Your task to perform on an android device: open app "Venmo" (install if not already installed) and go to login screen Image 0: 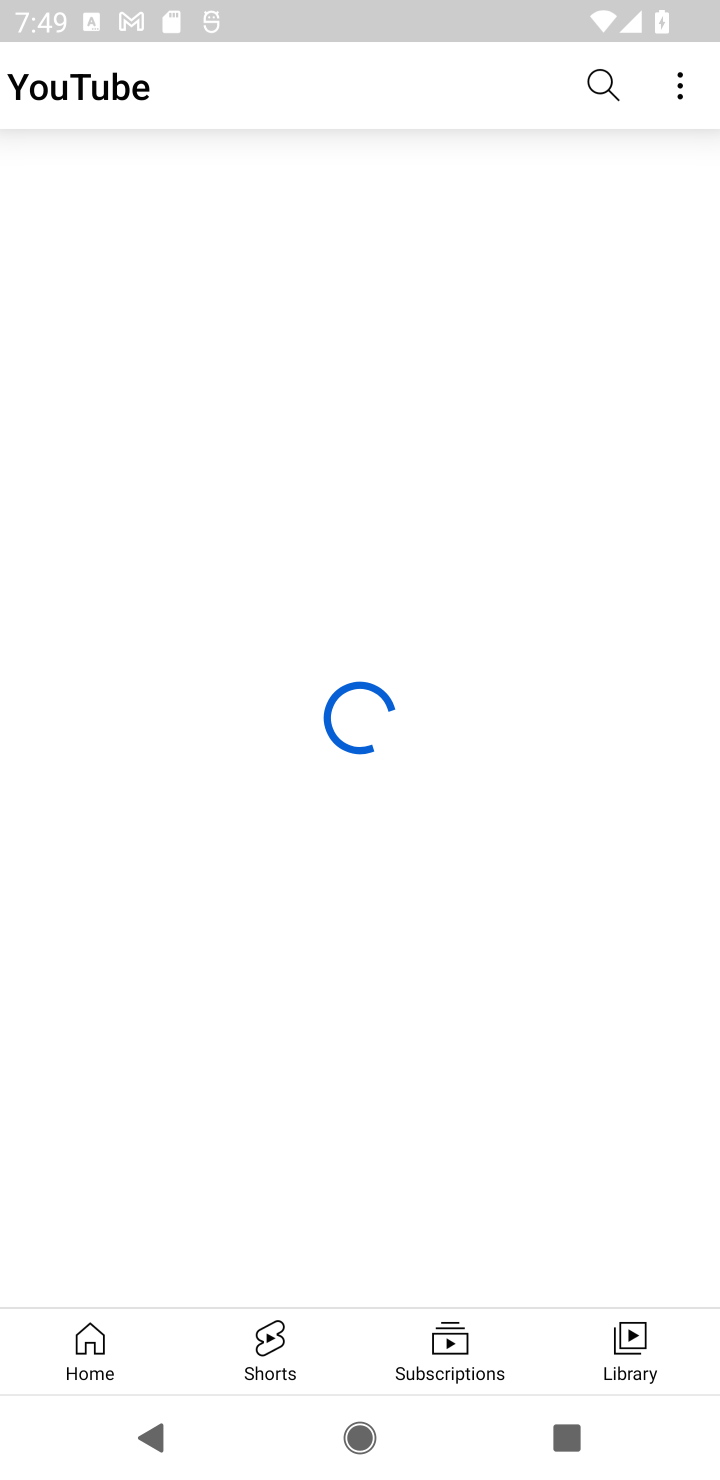
Step 0: press home button
Your task to perform on an android device: open app "Venmo" (install if not already installed) and go to login screen Image 1: 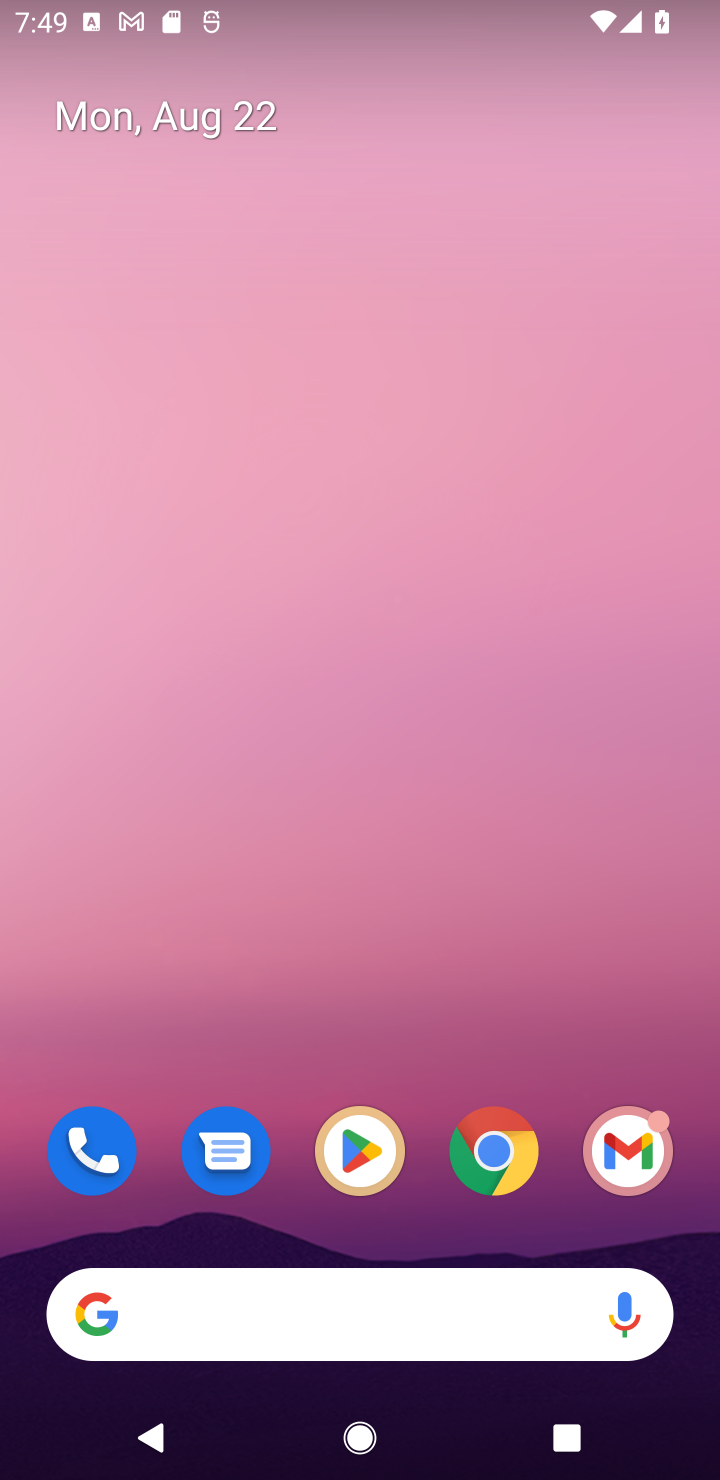
Step 1: click (349, 1137)
Your task to perform on an android device: open app "Venmo" (install if not already installed) and go to login screen Image 2: 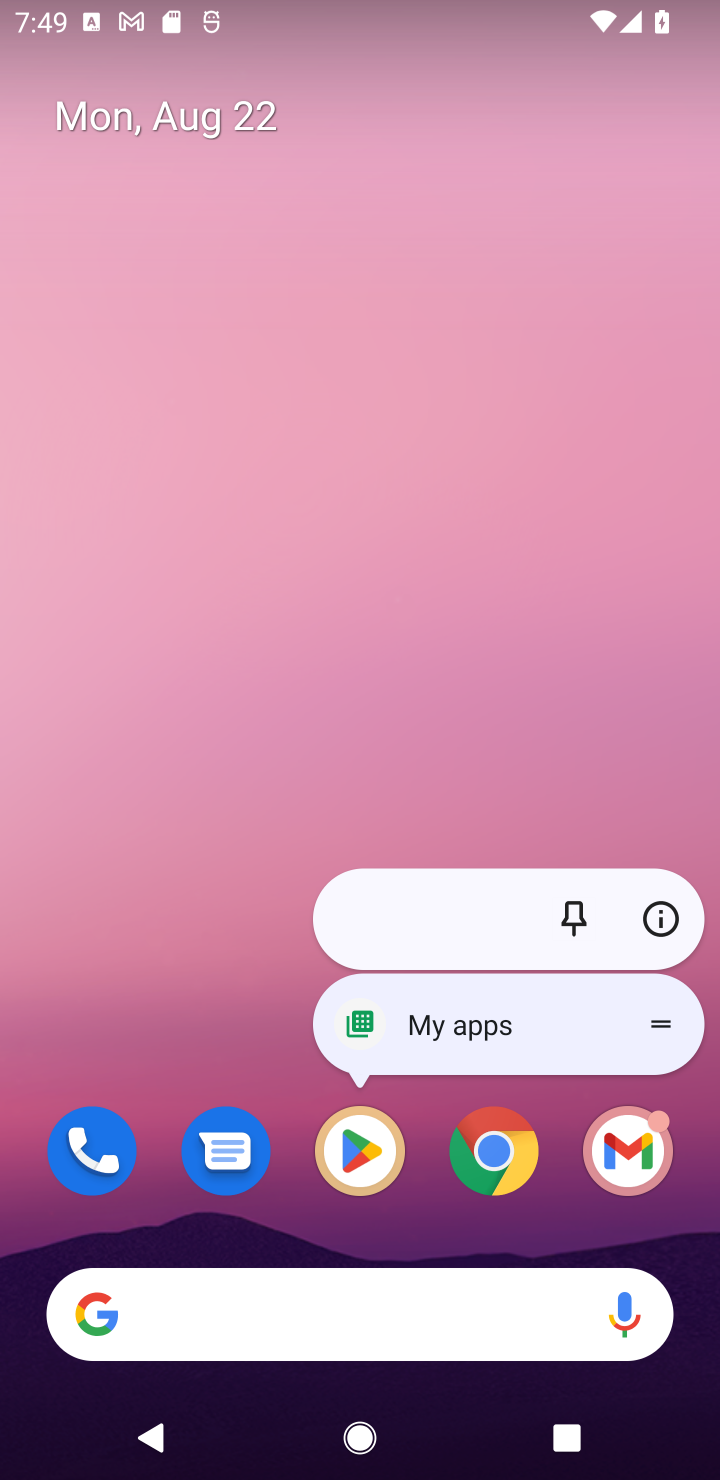
Step 2: click (349, 1145)
Your task to perform on an android device: open app "Venmo" (install if not already installed) and go to login screen Image 3: 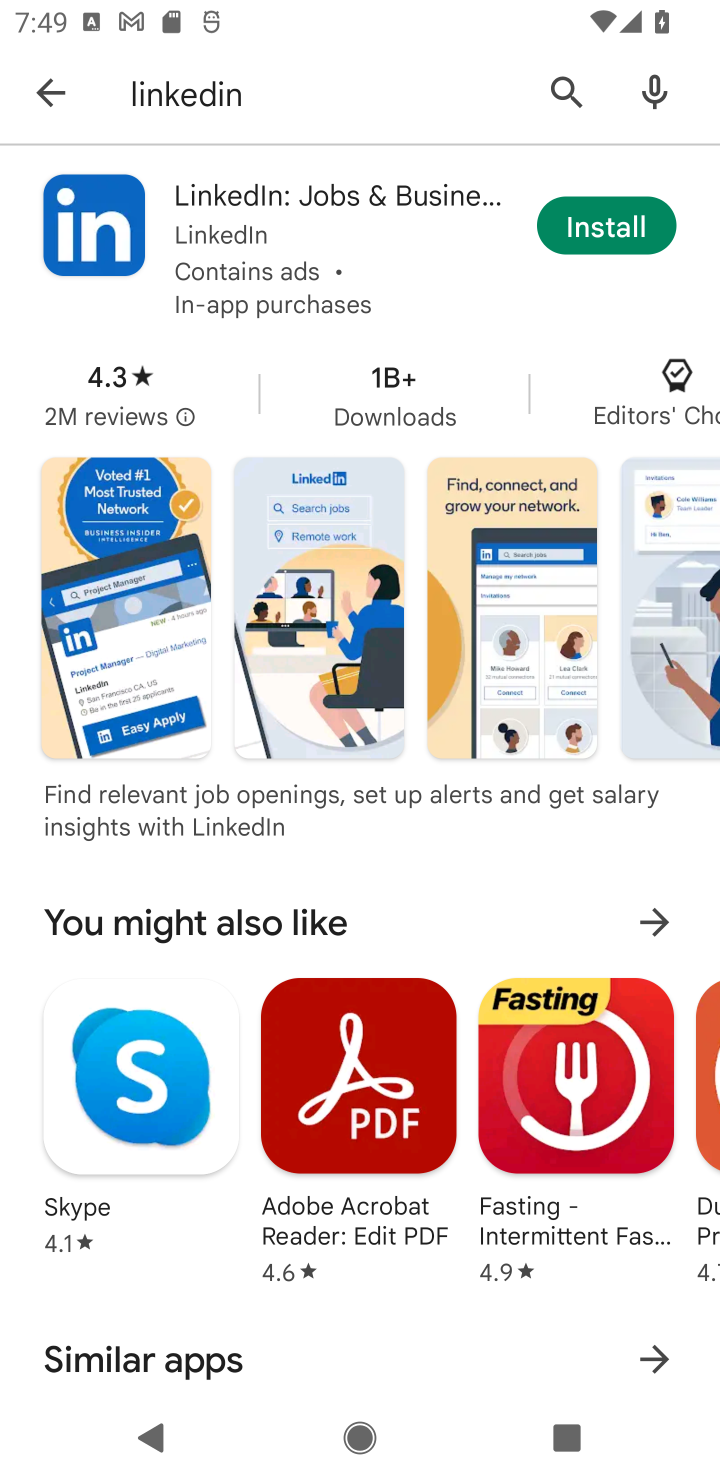
Step 3: click (567, 85)
Your task to perform on an android device: open app "Venmo" (install if not already installed) and go to login screen Image 4: 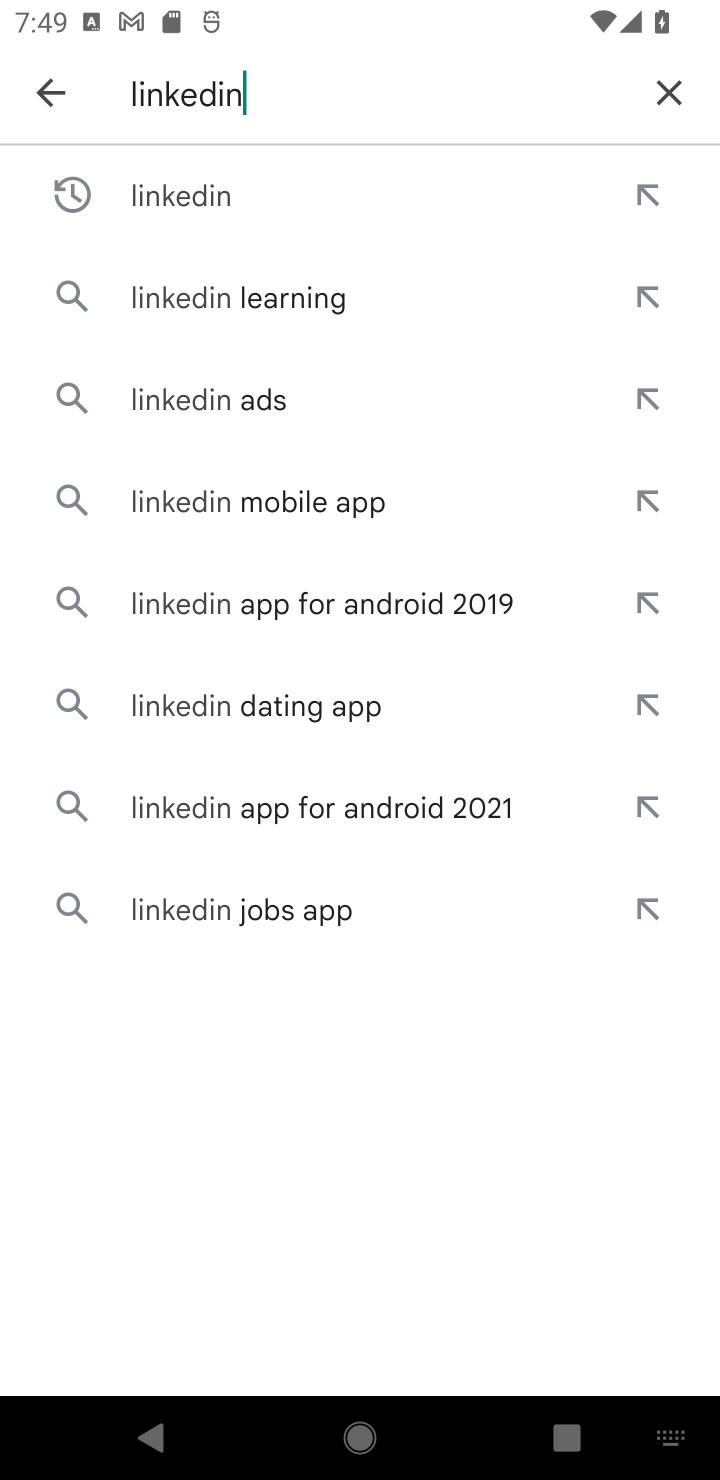
Step 4: click (669, 99)
Your task to perform on an android device: open app "Venmo" (install if not already installed) and go to login screen Image 5: 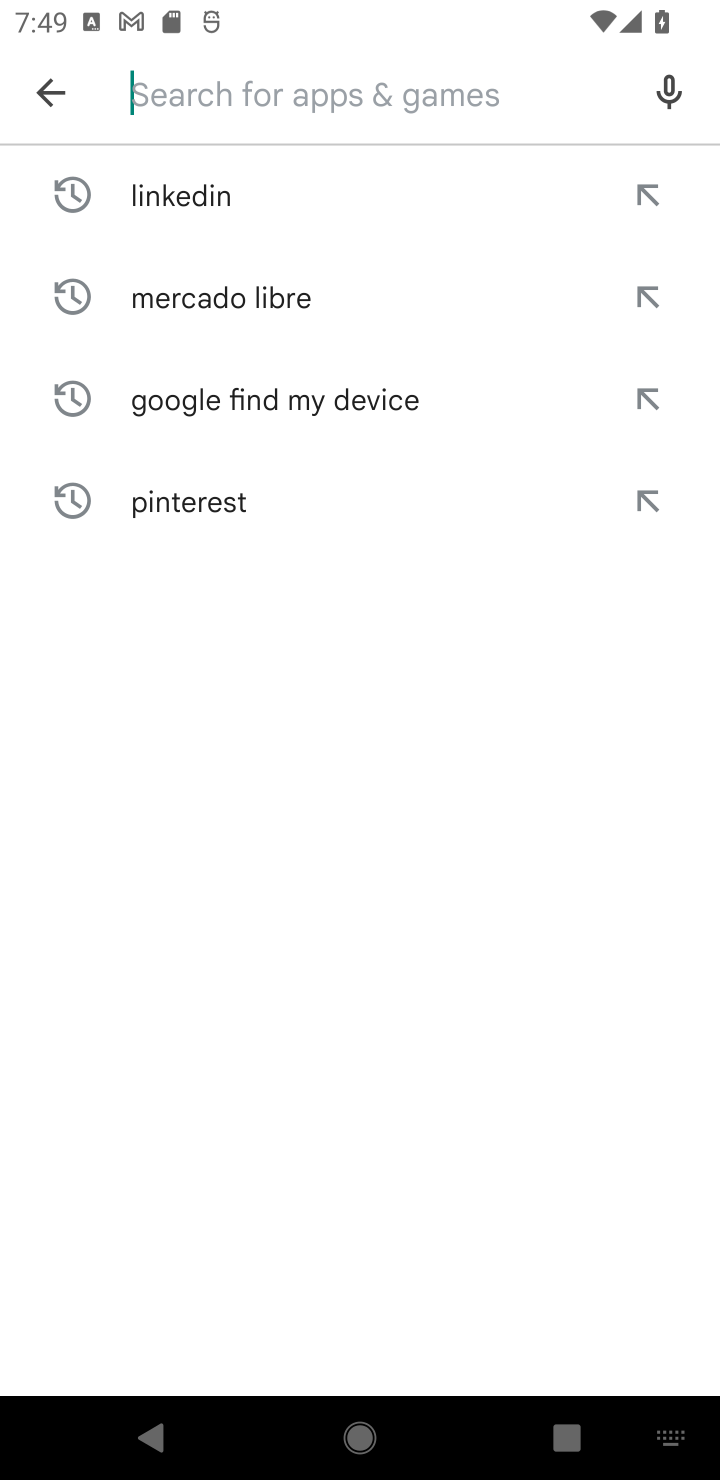
Step 5: type "Venmo"
Your task to perform on an android device: open app "Venmo" (install if not already installed) and go to login screen Image 6: 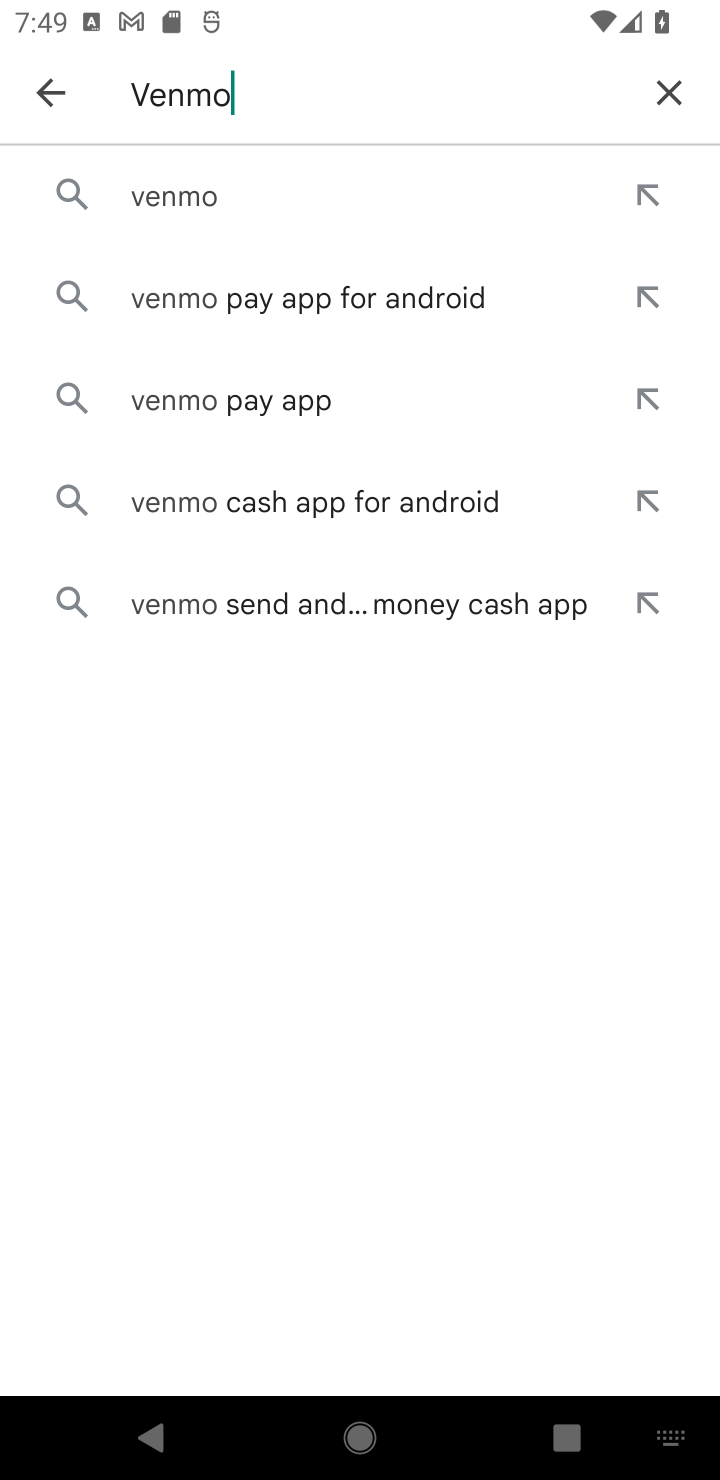
Step 6: click (212, 184)
Your task to perform on an android device: open app "Venmo" (install if not already installed) and go to login screen Image 7: 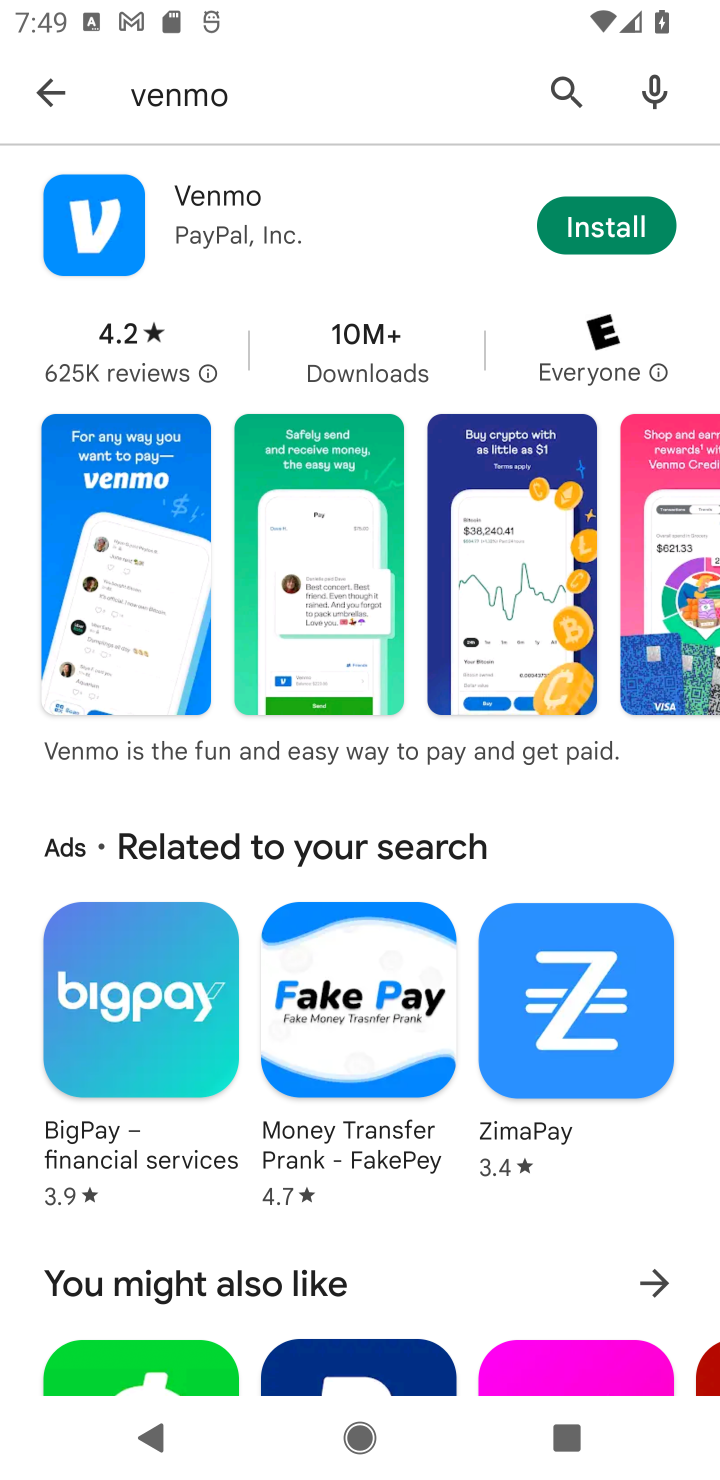
Step 7: click (623, 220)
Your task to perform on an android device: open app "Venmo" (install if not already installed) and go to login screen Image 8: 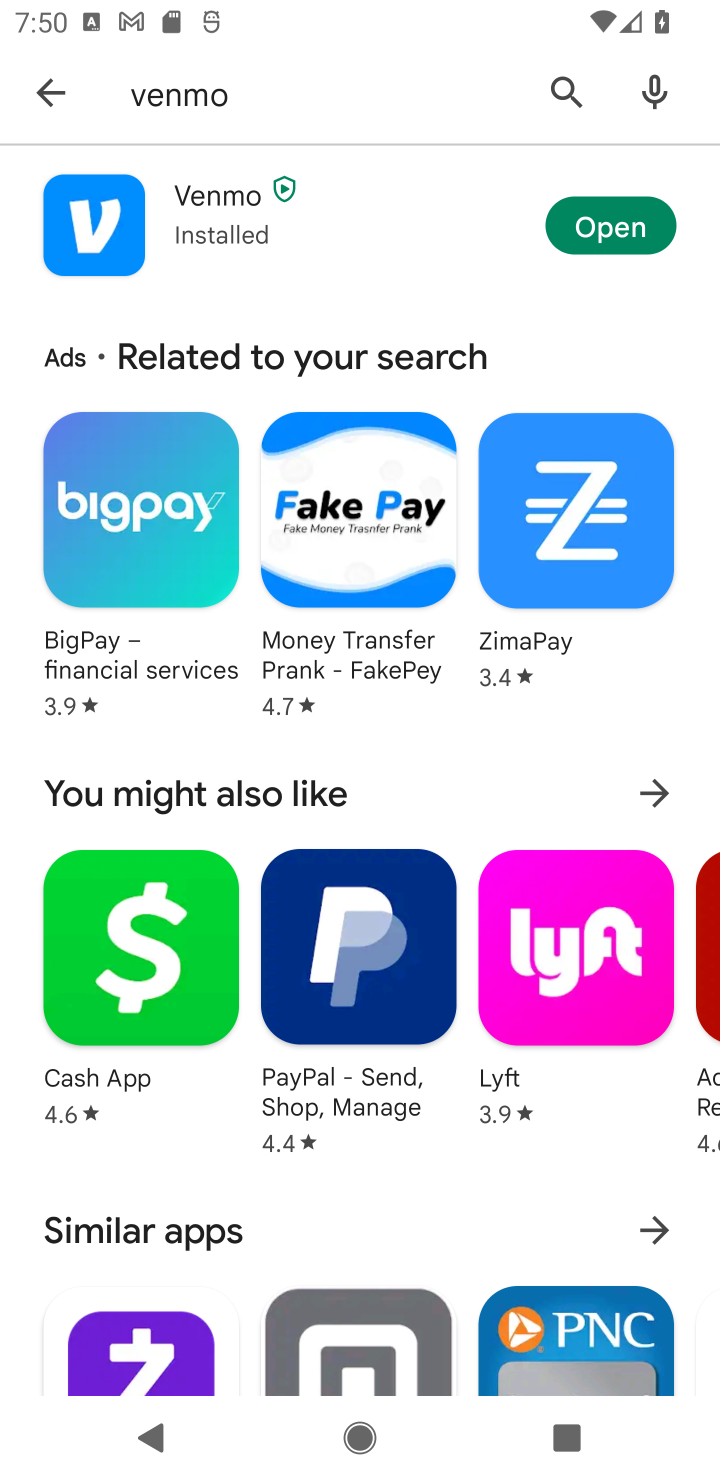
Step 8: click (606, 228)
Your task to perform on an android device: open app "Venmo" (install if not already installed) and go to login screen Image 9: 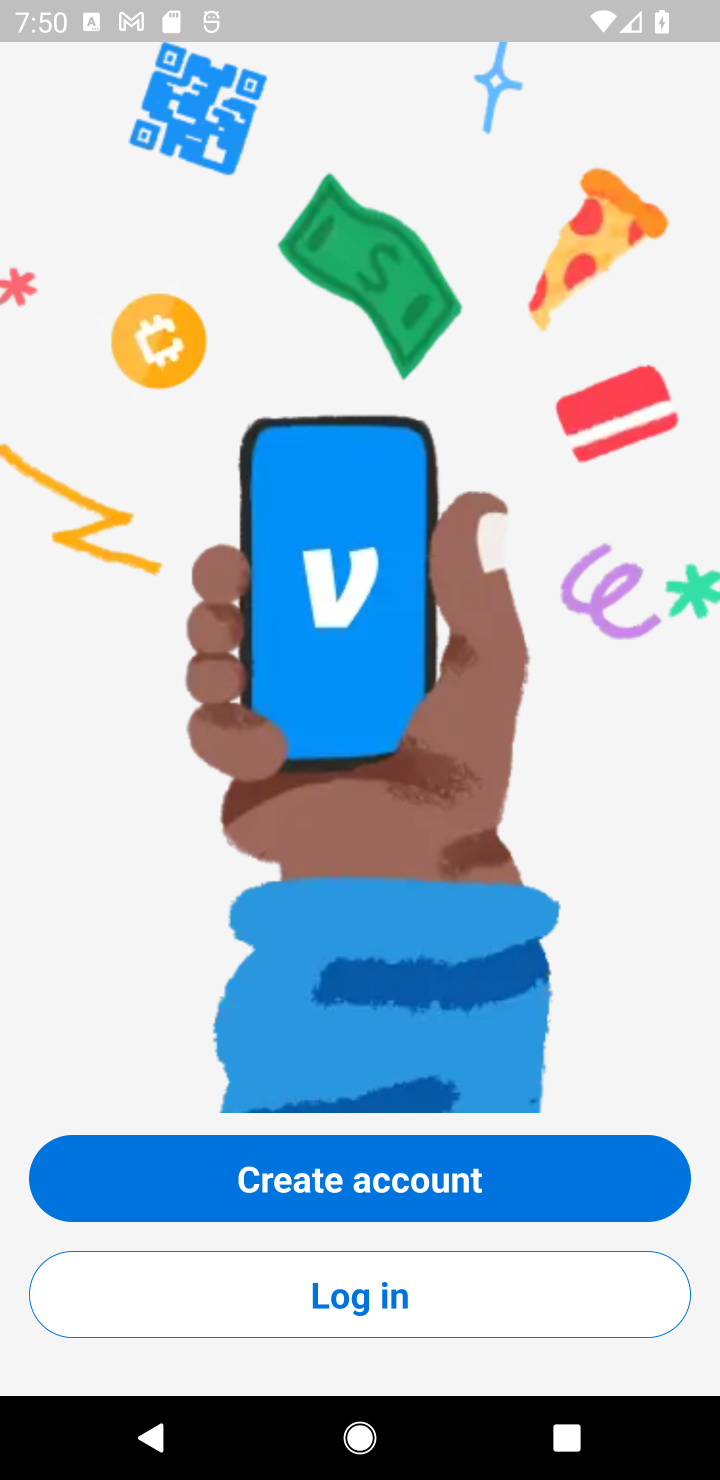
Step 9: click (336, 1299)
Your task to perform on an android device: open app "Venmo" (install if not already installed) and go to login screen Image 10: 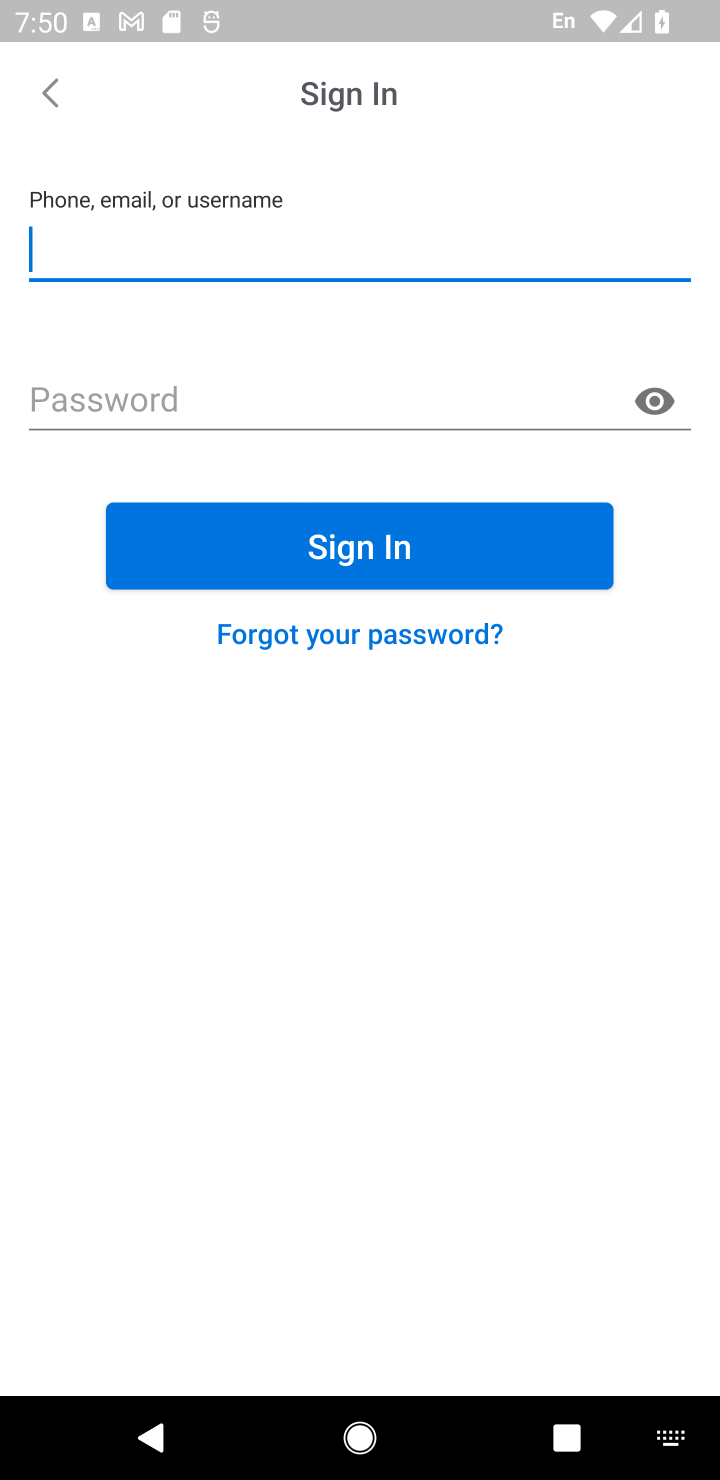
Step 10: task complete